Your task to perform on an android device: Go to settings Image 0: 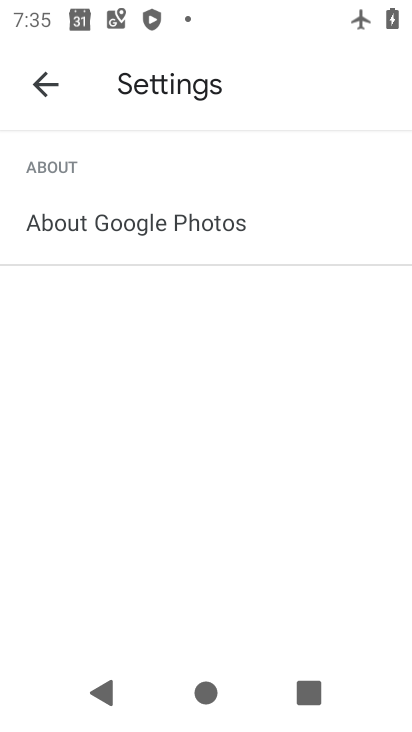
Step 0: press home button
Your task to perform on an android device: Go to settings Image 1: 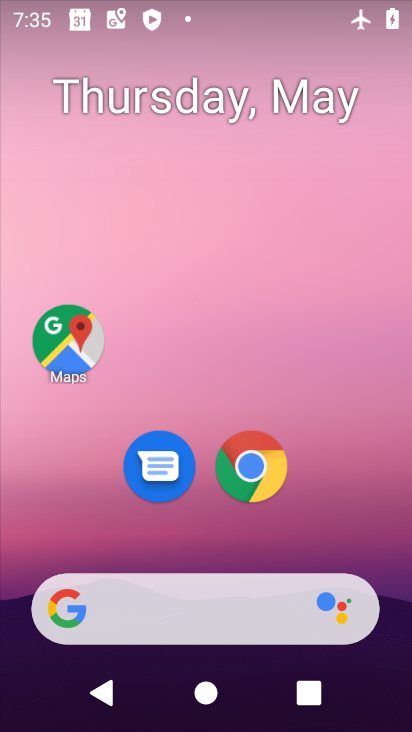
Step 1: drag from (337, 526) to (257, 116)
Your task to perform on an android device: Go to settings Image 2: 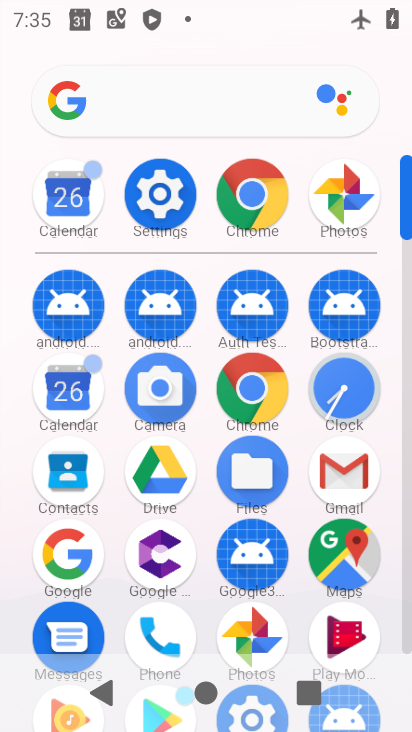
Step 2: click (154, 185)
Your task to perform on an android device: Go to settings Image 3: 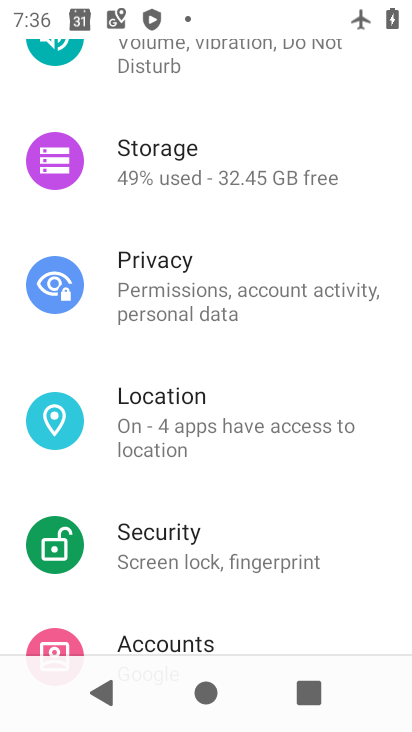
Step 3: task complete